Your task to perform on an android device: turn on location history Image 0: 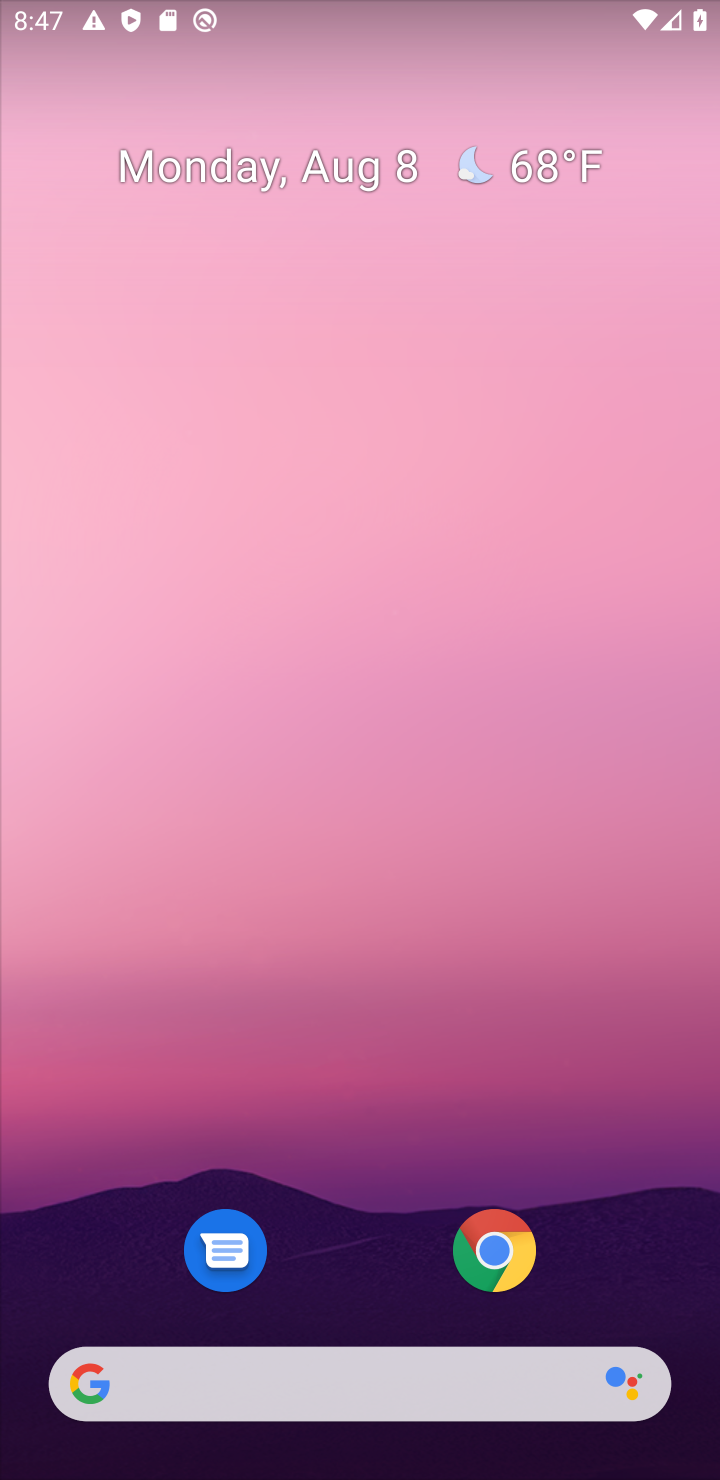
Step 0: press home button
Your task to perform on an android device: turn on location history Image 1: 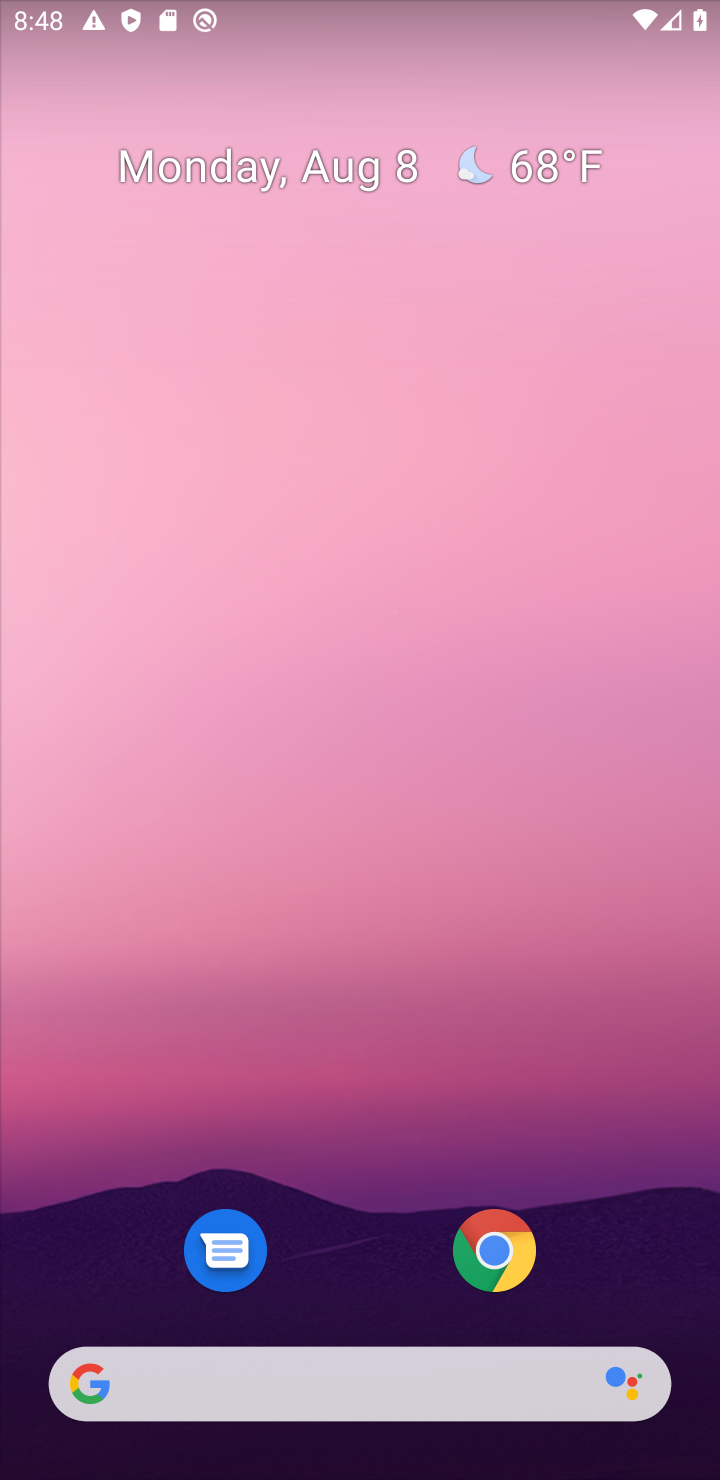
Step 1: drag from (607, 1256) to (565, 665)
Your task to perform on an android device: turn on location history Image 2: 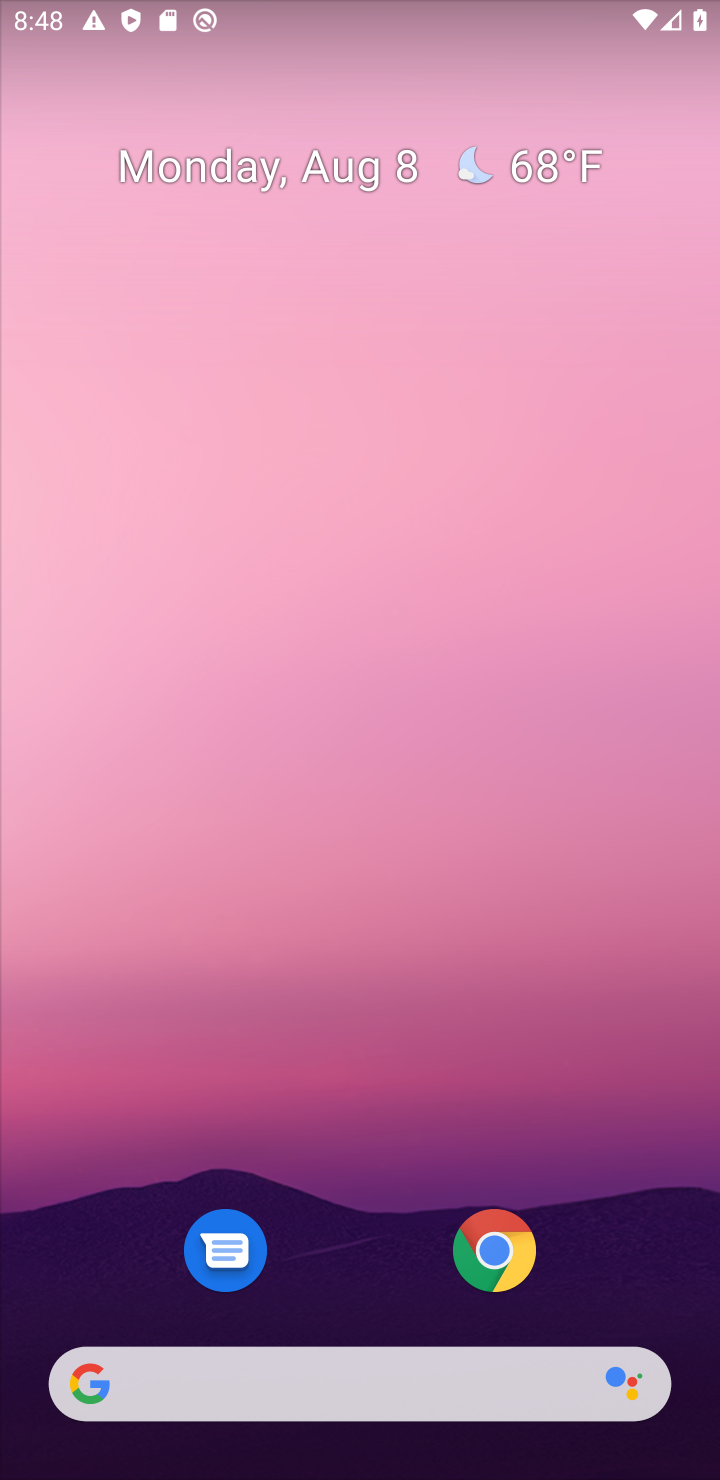
Step 2: drag from (655, 1325) to (584, 517)
Your task to perform on an android device: turn on location history Image 3: 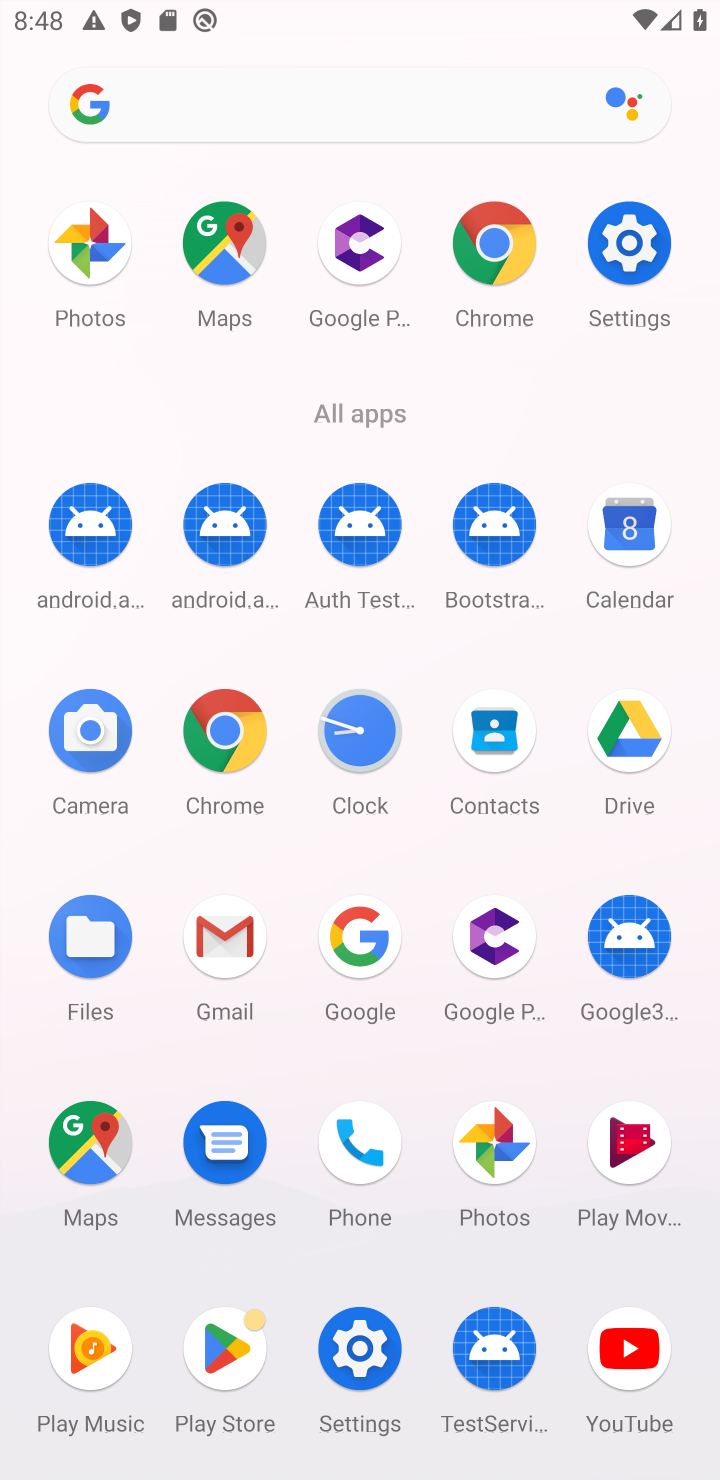
Step 3: drag from (560, 1099) to (539, 348)
Your task to perform on an android device: turn on location history Image 4: 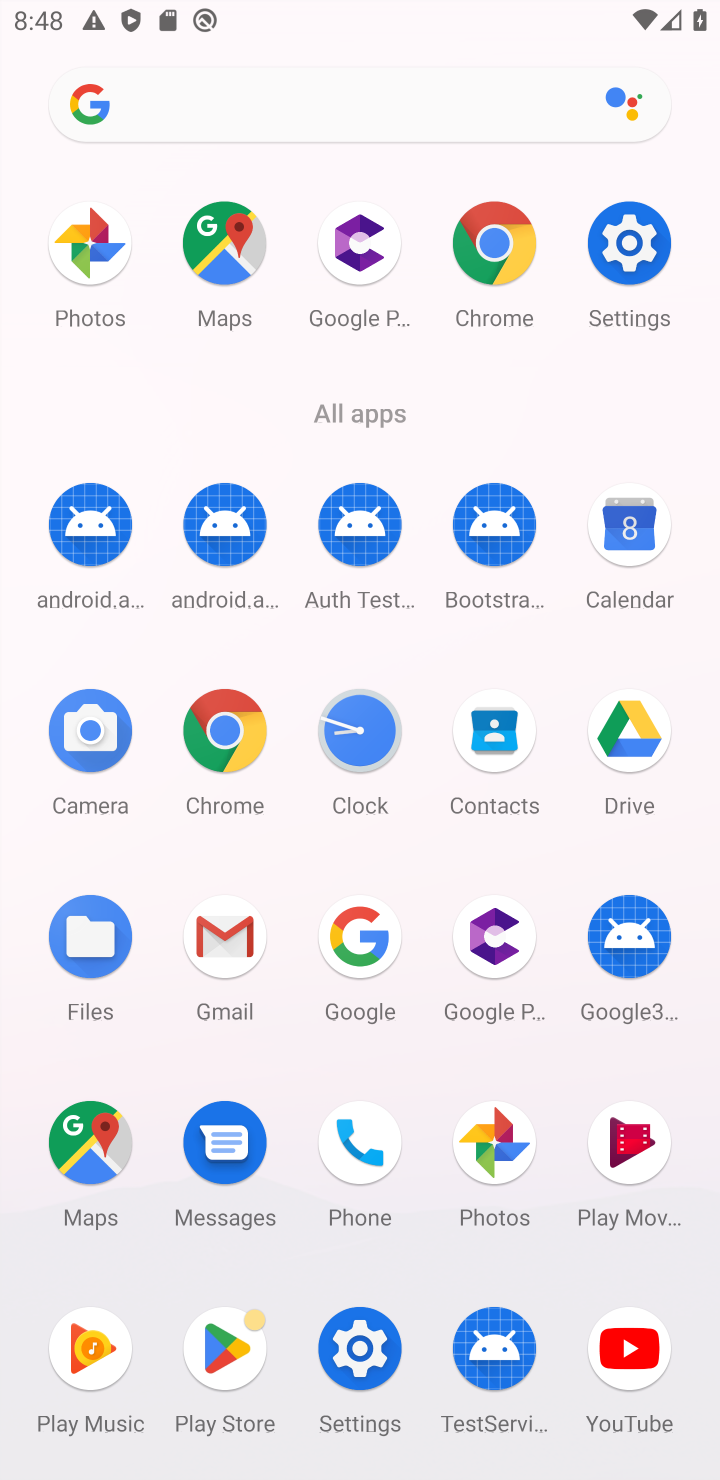
Step 4: click (360, 1323)
Your task to perform on an android device: turn on location history Image 5: 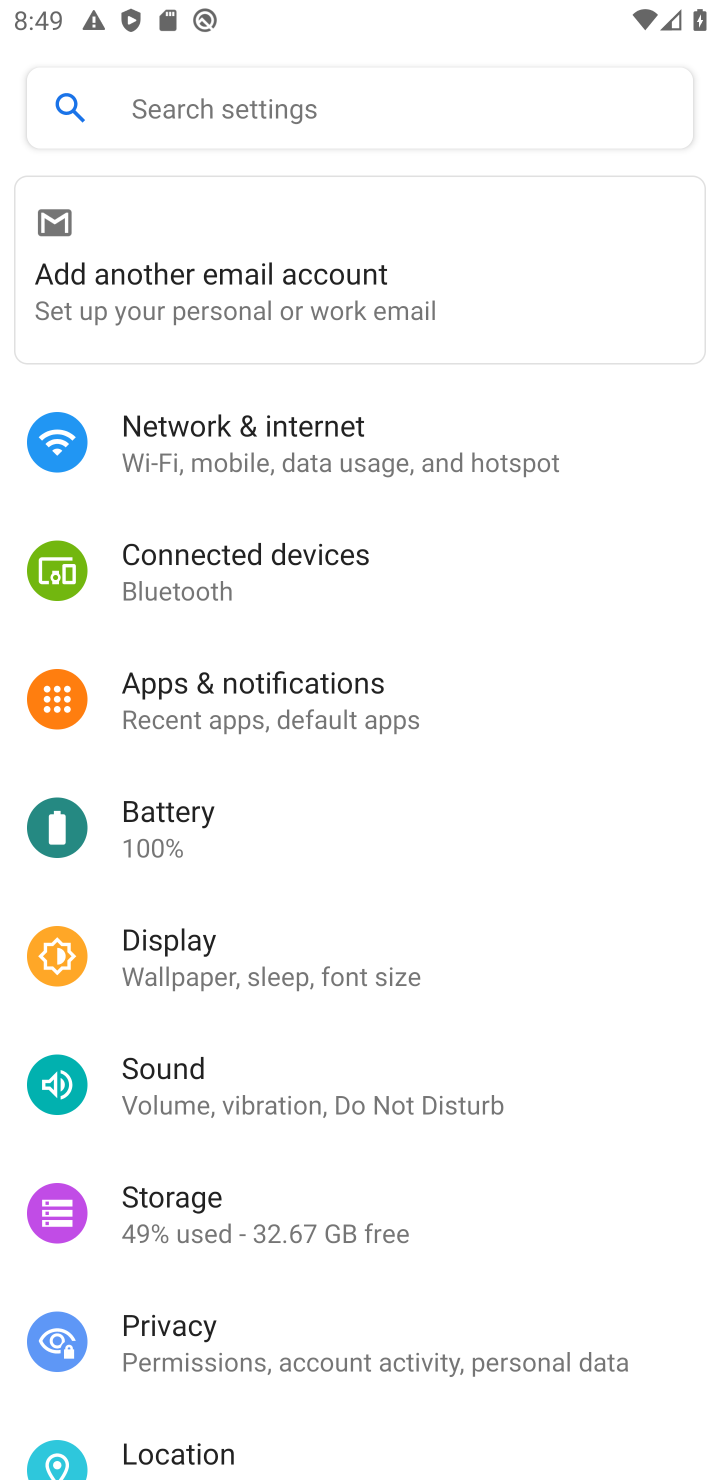
Step 5: drag from (379, 1202) to (370, 690)
Your task to perform on an android device: turn on location history Image 6: 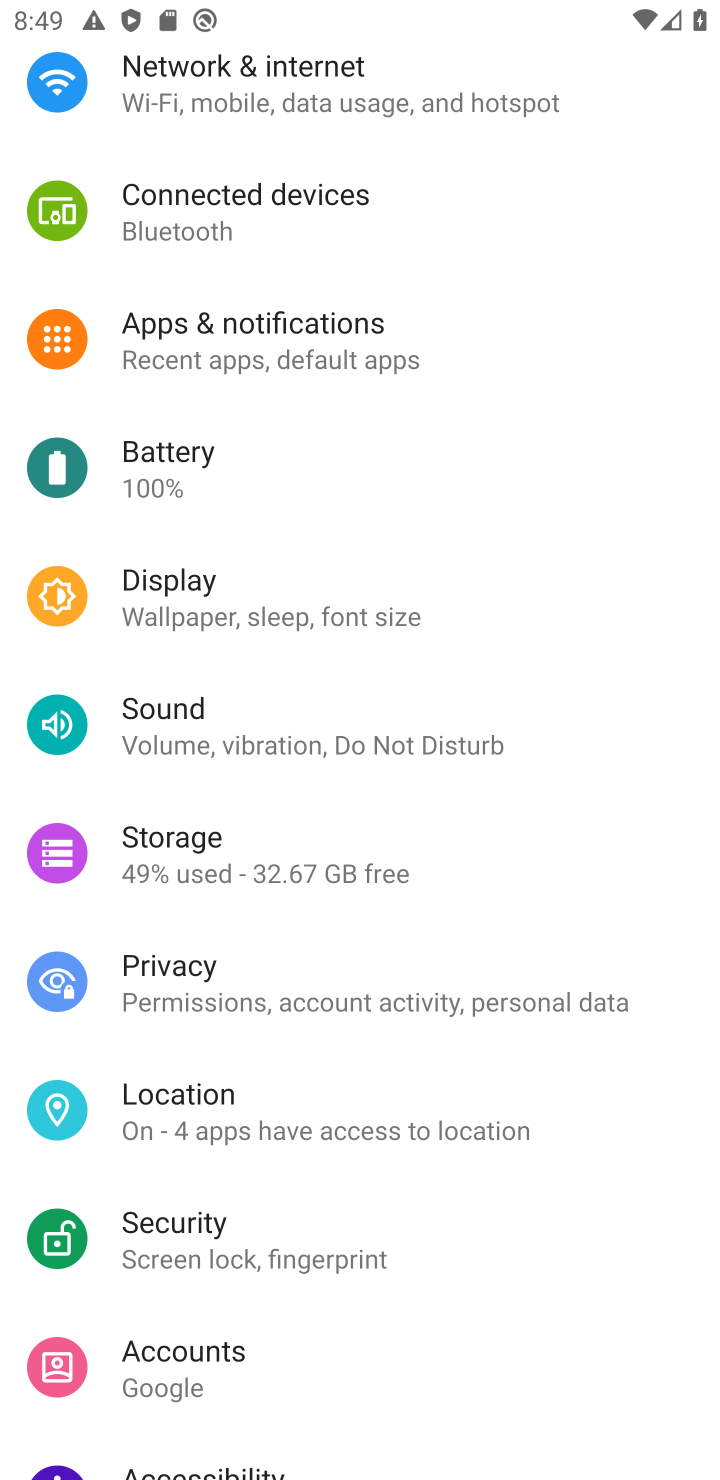
Step 6: click (281, 1118)
Your task to perform on an android device: turn on location history Image 7: 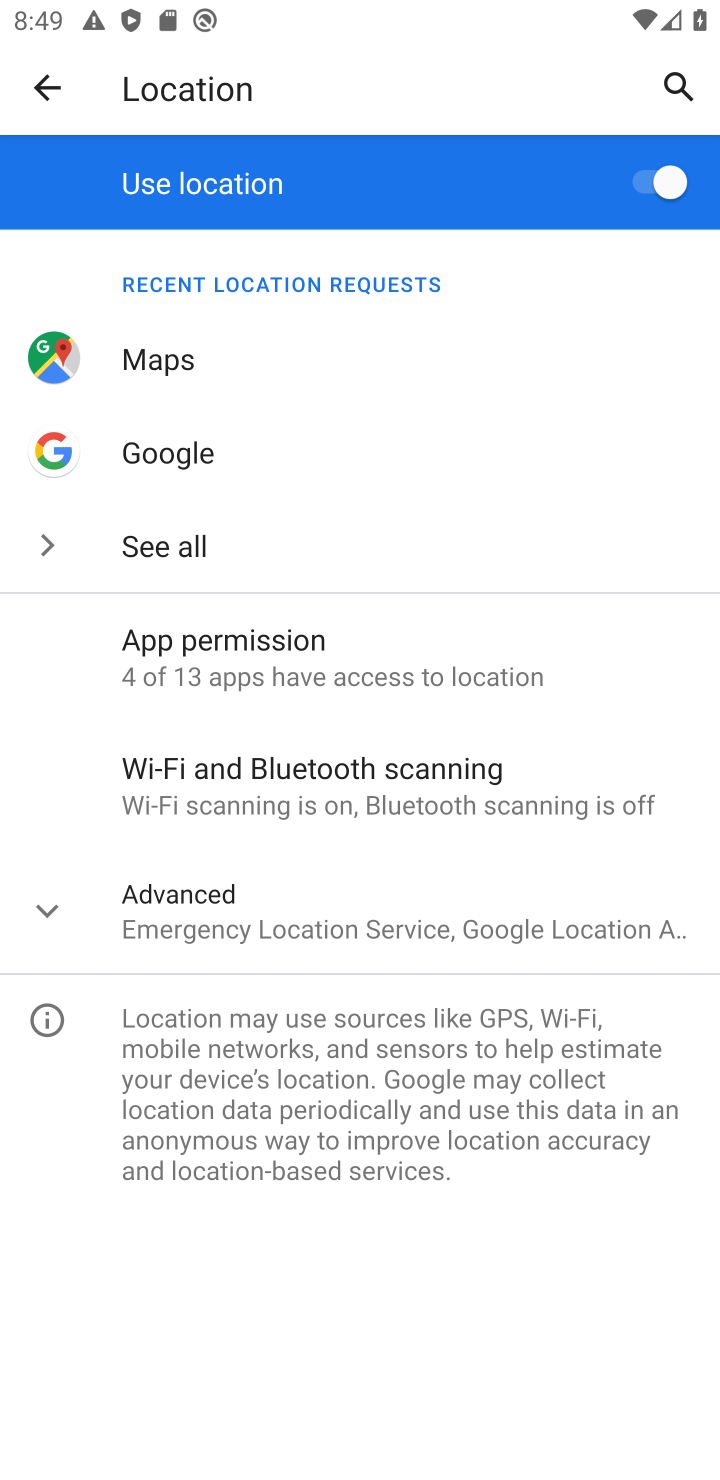
Step 7: click (422, 919)
Your task to perform on an android device: turn on location history Image 8: 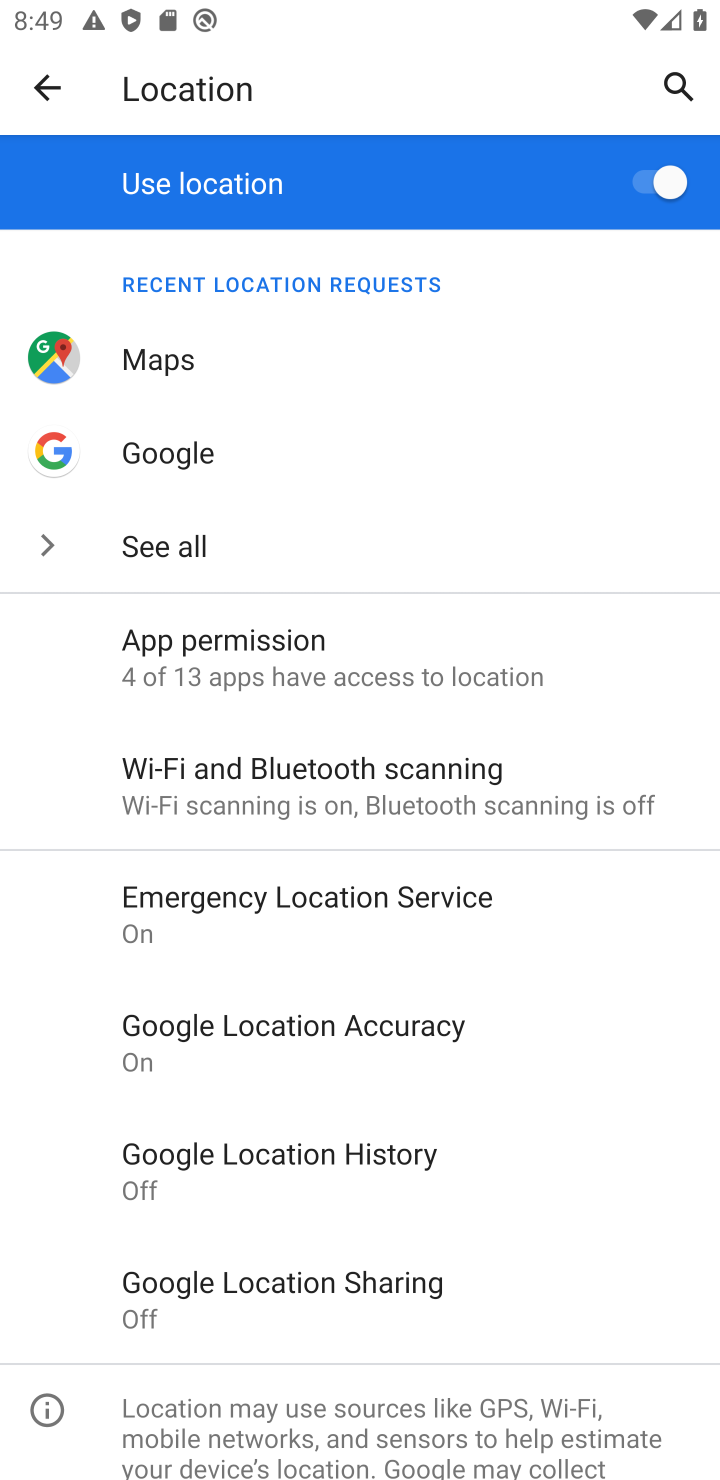
Step 8: click (401, 1178)
Your task to perform on an android device: turn on location history Image 9: 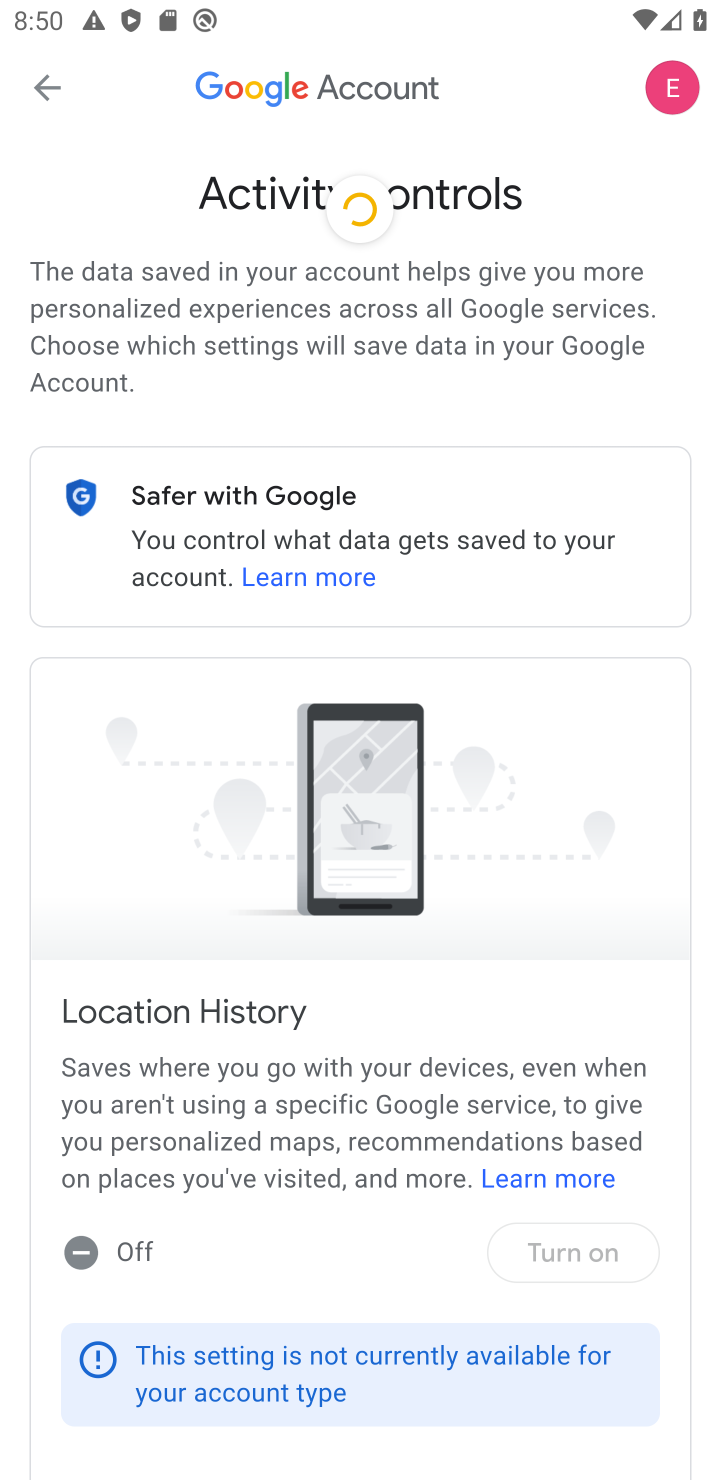
Step 9: task complete